Your task to perform on an android device: allow cookies in the chrome app Image 0: 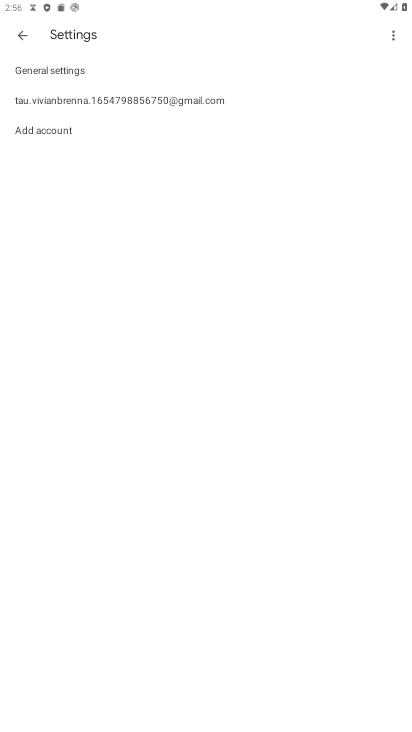
Step 0: click (18, 38)
Your task to perform on an android device: allow cookies in the chrome app Image 1: 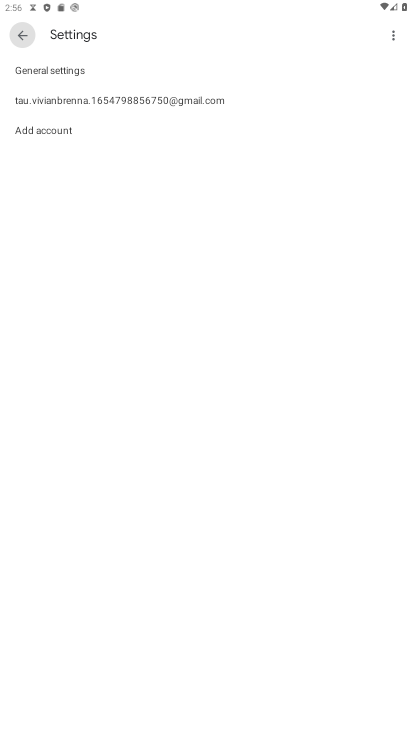
Step 1: click (19, 37)
Your task to perform on an android device: allow cookies in the chrome app Image 2: 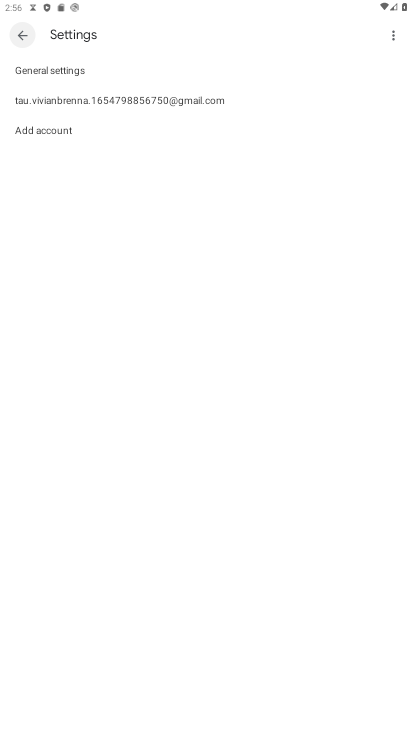
Step 2: click (19, 37)
Your task to perform on an android device: allow cookies in the chrome app Image 3: 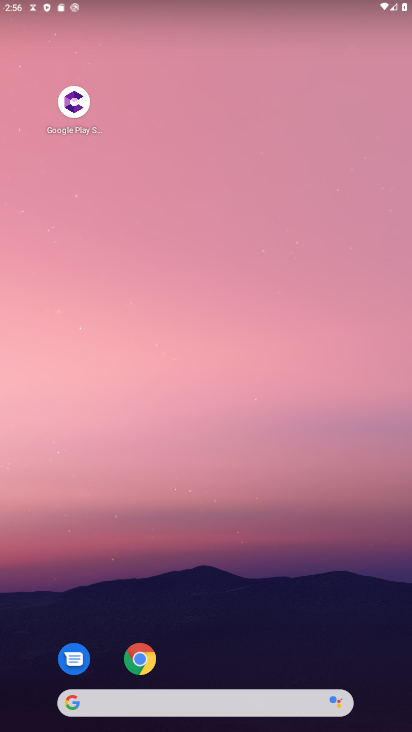
Step 3: drag from (210, 655) to (129, 71)
Your task to perform on an android device: allow cookies in the chrome app Image 4: 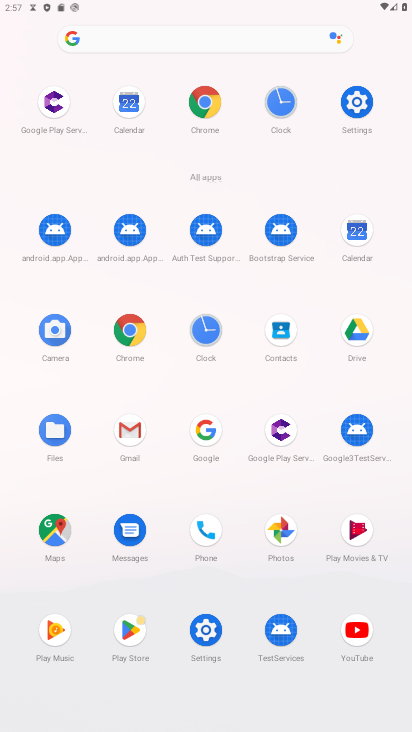
Step 4: click (205, 104)
Your task to perform on an android device: allow cookies in the chrome app Image 5: 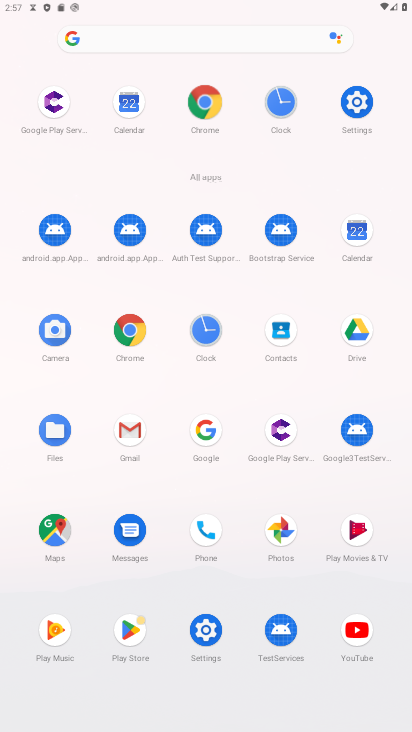
Step 5: click (209, 106)
Your task to perform on an android device: allow cookies in the chrome app Image 6: 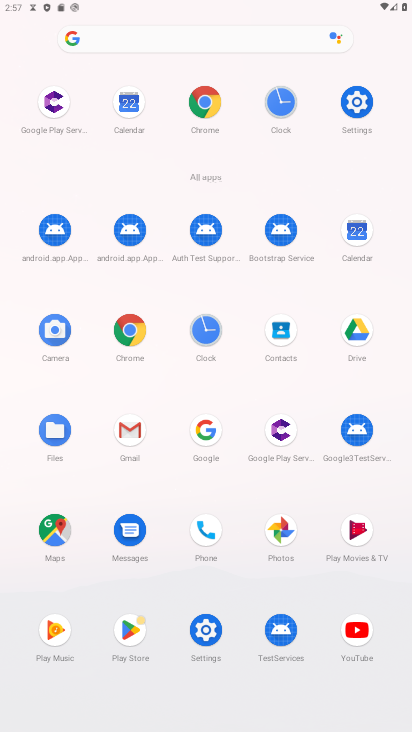
Step 6: click (209, 106)
Your task to perform on an android device: allow cookies in the chrome app Image 7: 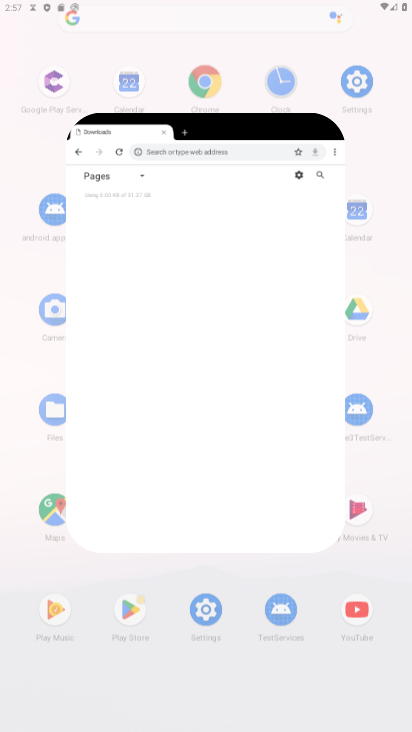
Step 7: click (209, 106)
Your task to perform on an android device: allow cookies in the chrome app Image 8: 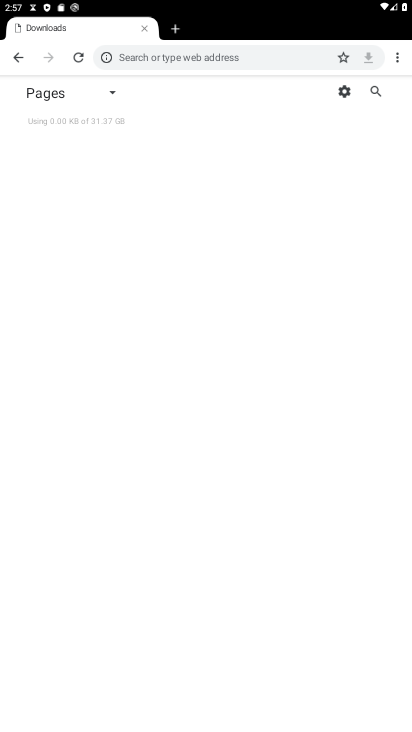
Step 8: click (9, 61)
Your task to perform on an android device: allow cookies in the chrome app Image 9: 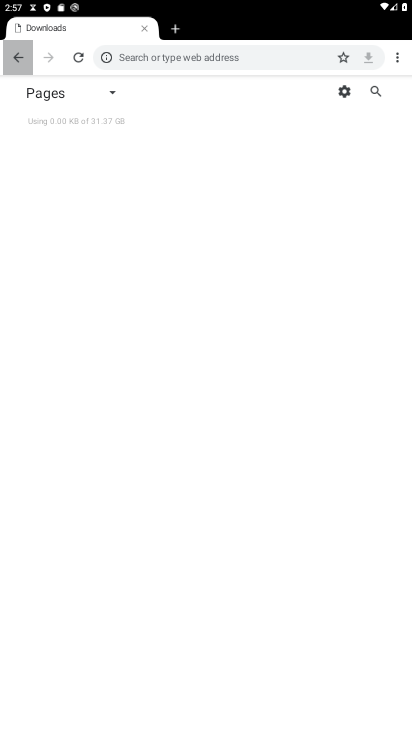
Step 9: click (11, 57)
Your task to perform on an android device: allow cookies in the chrome app Image 10: 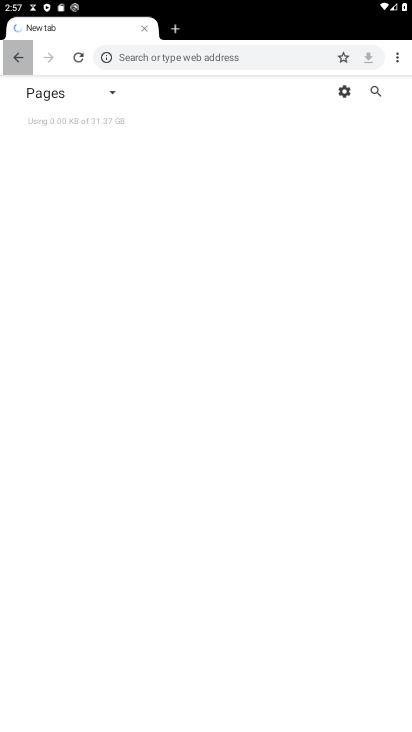
Step 10: click (11, 57)
Your task to perform on an android device: allow cookies in the chrome app Image 11: 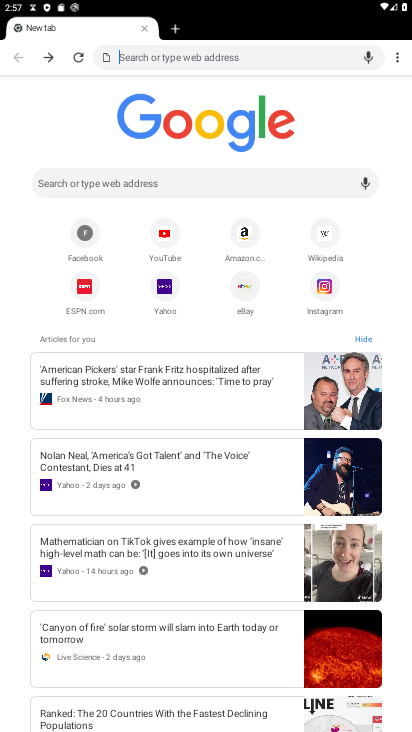
Step 11: drag from (397, 59) to (278, 103)
Your task to perform on an android device: allow cookies in the chrome app Image 12: 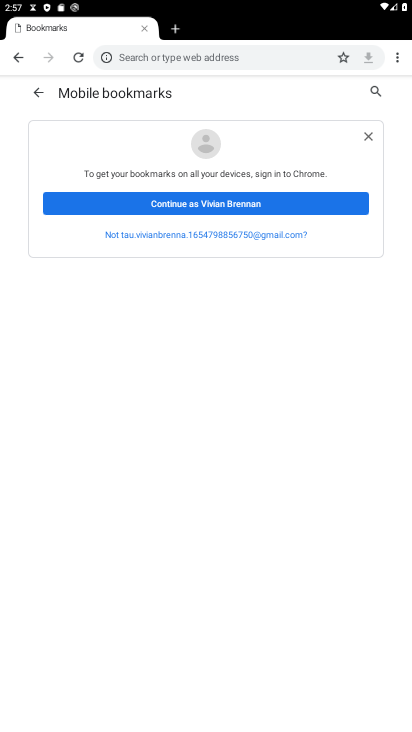
Step 12: click (400, 62)
Your task to perform on an android device: allow cookies in the chrome app Image 13: 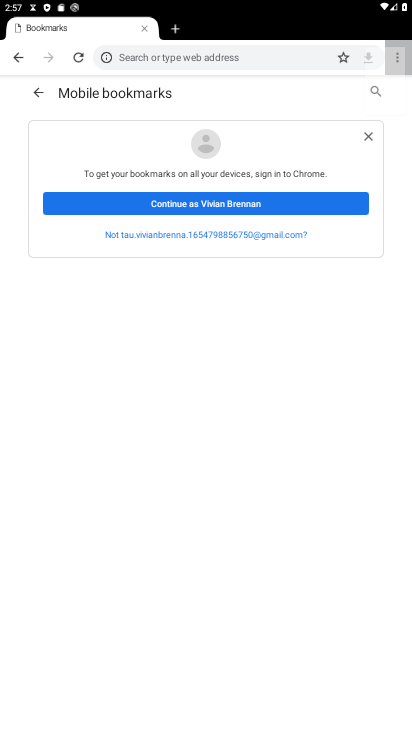
Step 13: click (399, 62)
Your task to perform on an android device: allow cookies in the chrome app Image 14: 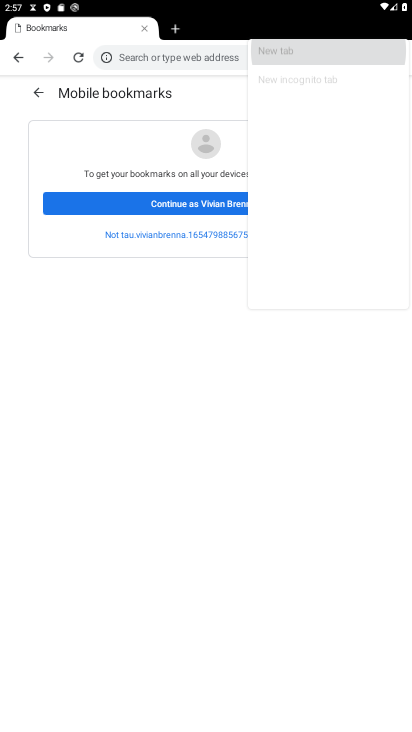
Step 14: click (401, 61)
Your task to perform on an android device: allow cookies in the chrome app Image 15: 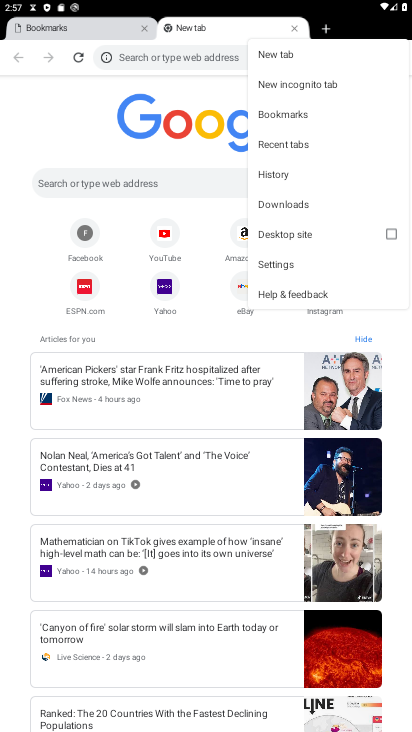
Step 15: click (279, 260)
Your task to perform on an android device: allow cookies in the chrome app Image 16: 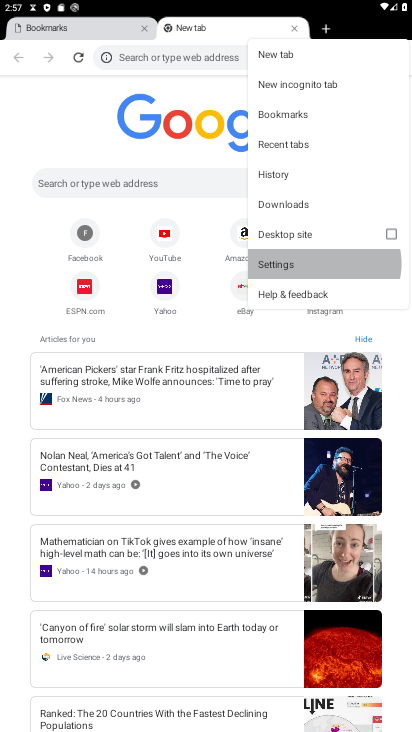
Step 16: click (279, 260)
Your task to perform on an android device: allow cookies in the chrome app Image 17: 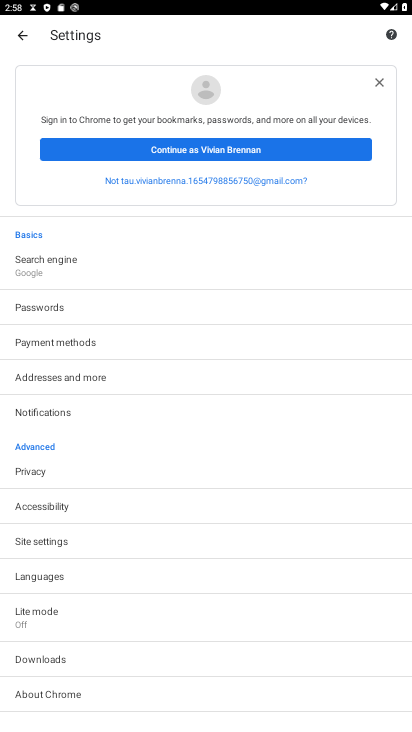
Step 17: drag from (174, 574) to (97, 184)
Your task to perform on an android device: allow cookies in the chrome app Image 18: 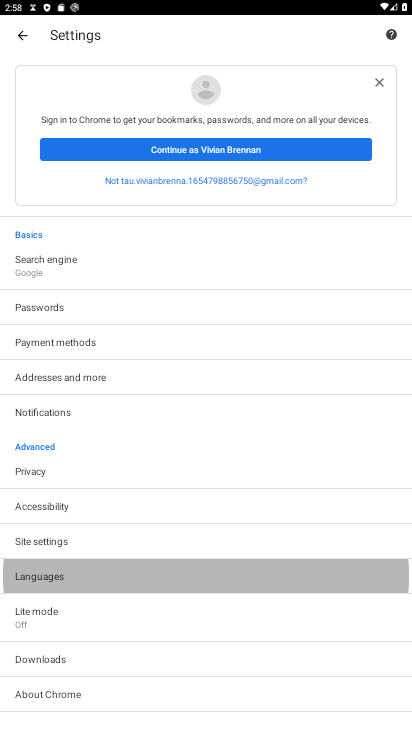
Step 18: drag from (94, 480) to (137, 26)
Your task to perform on an android device: allow cookies in the chrome app Image 19: 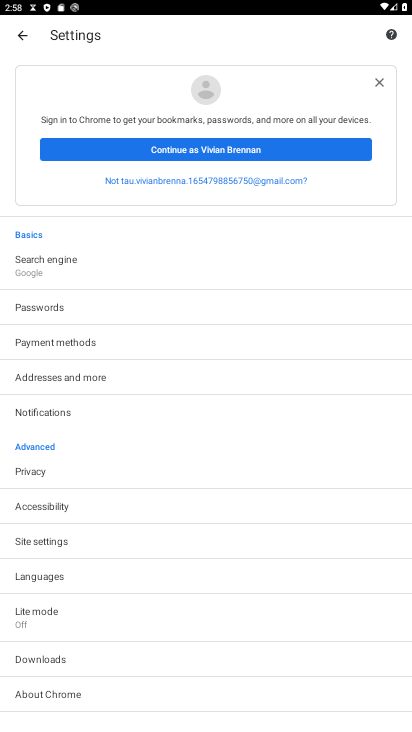
Step 19: click (371, 86)
Your task to perform on an android device: allow cookies in the chrome app Image 20: 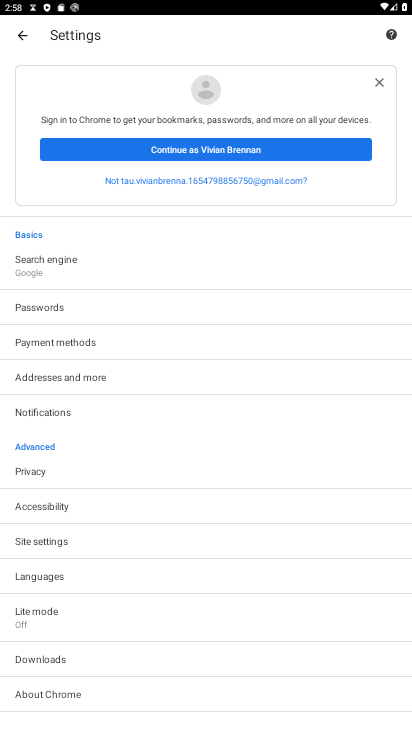
Step 20: drag from (59, 515) to (62, 72)
Your task to perform on an android device: allow cookies in the chrome app Image 21: 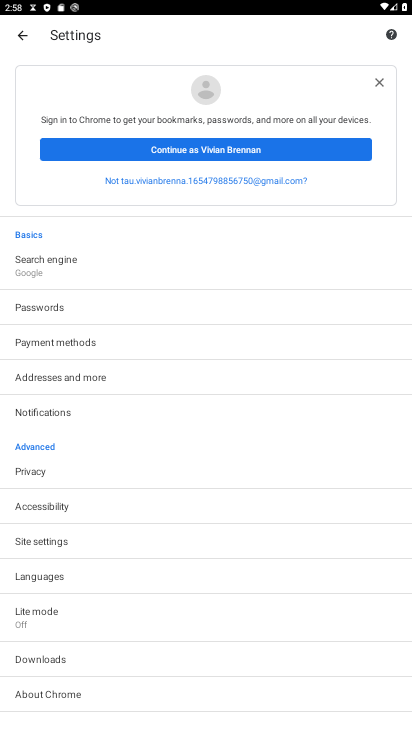
Step 21: click (96, 109)
Your task to perform on an android device: allow cookies in the chrome app Image 22: 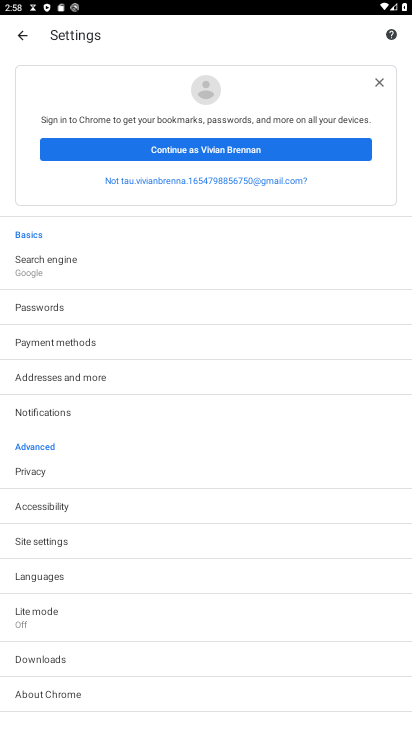
Step 22: drag from (72, 384) to (53, 198)
Your task to perform on an android device: allow cookies in the chrome app Image 23: 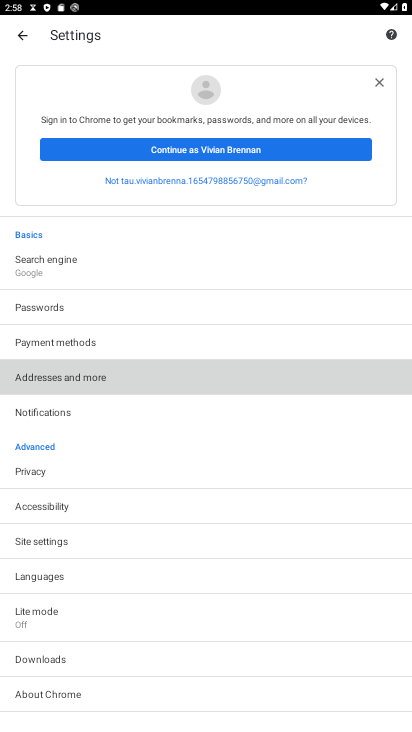
Step 23: click (176, 324)
Your task to perform on an android device: allow cookies in the chrome app Image 24: 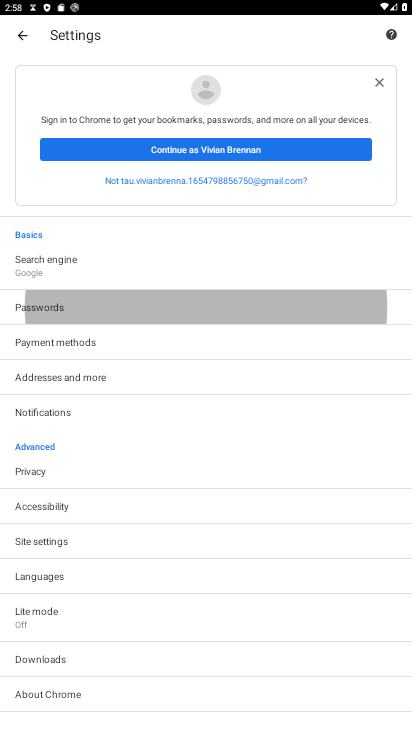
Step 24: drag from (232, 467) to (231, 210)
Your task to perform on an android device: allow cookies in the chrome app Image 25: 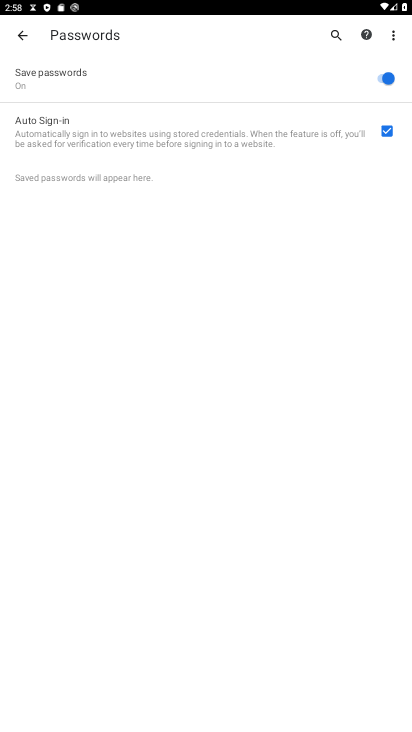
Step 25: click (185, 427)
Your task to perform on an android device: allow cookies in the chrome app Image 26: 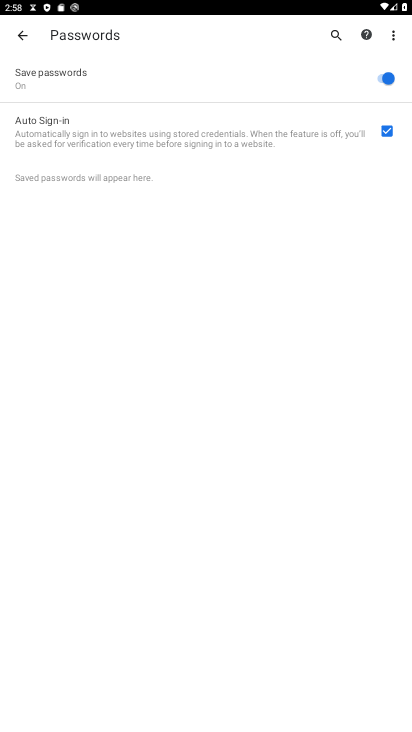
Step 26: drag from (197, 457) to (170, 6)
Your task to perform on an android device: allow cookies in the chrome app Image 27: 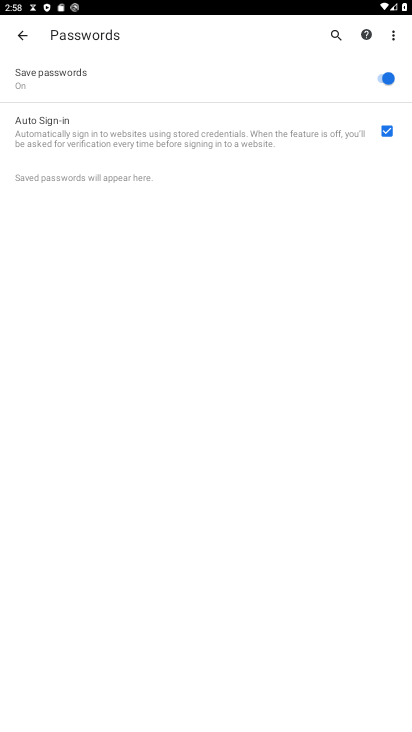
Step 27: click (27, 37)
Your task to perform on an android device: allow cookies in the chrome app Image 28: 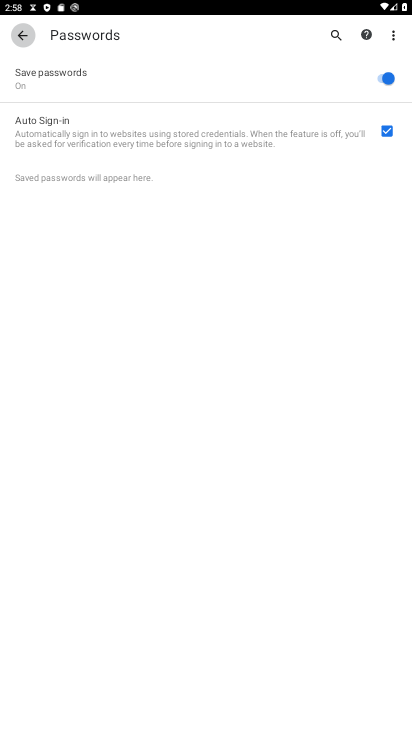
Step 28: click (20, 26)
Your task to perform on an android device: allow cookies in the chrome app Image 29: 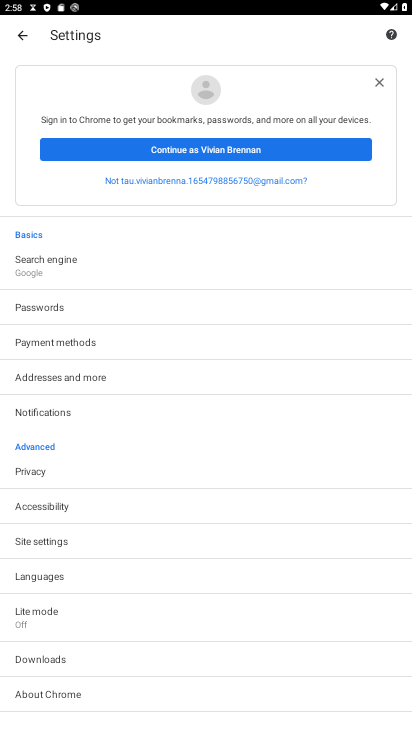
Step 29: click (48, 72)
Your task to perform on an android device: allow cookies in the chrome app Image 30: 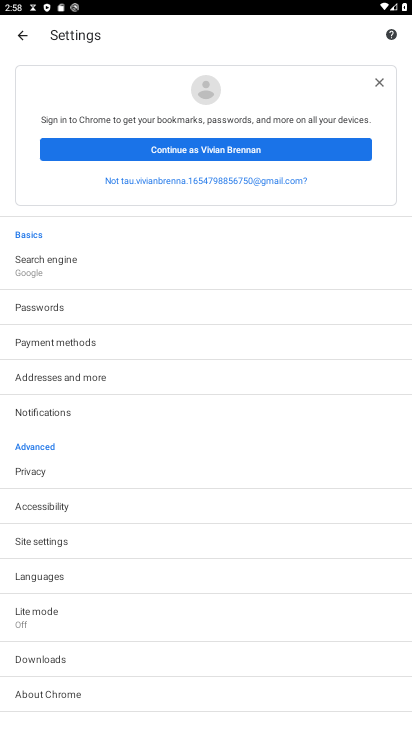
Step 30: drag from (64, 382) to (66, 122)
Your task to perform on an android device: allow cookies in the chrome app Image 31: 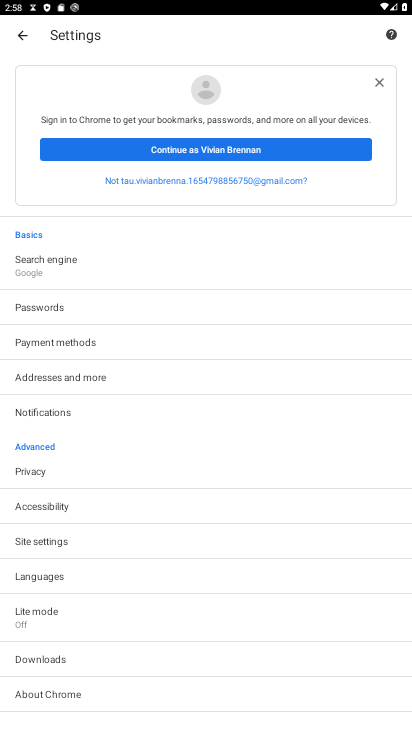
Step 31: drag from (72, 370) to (61, 62)
Your task to perform on an android device: allow cookies in the chrome app Image 32: 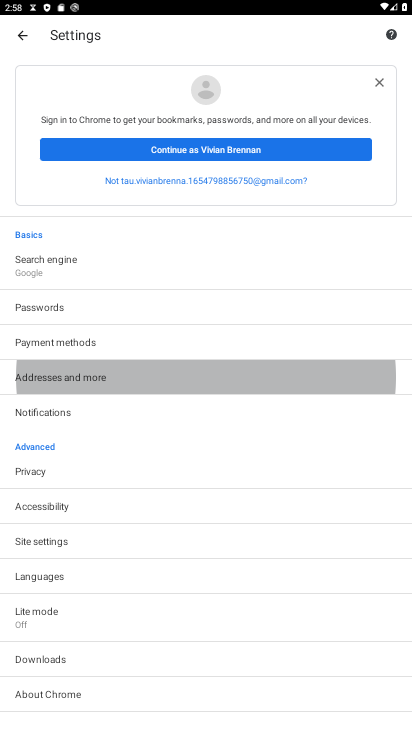
Step 32: drag from (30, 557) to (54, 82)
Your task to perform on an android device: allow cookies in the chrome app Image 33: 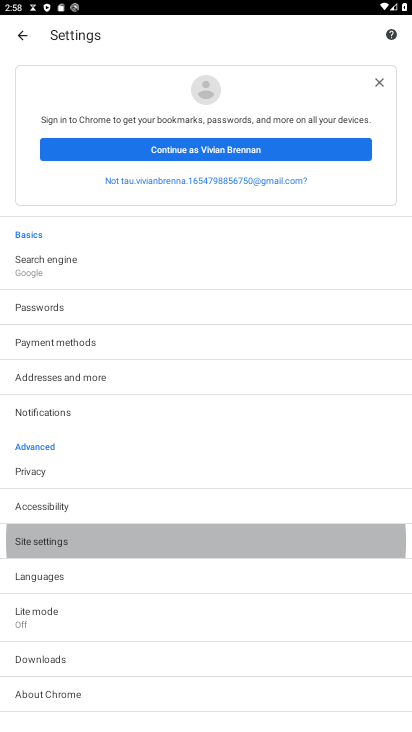
Step 33: drag from (83, 436) to (95, 155)
Your task to perform on an android device: allow cookies in the chrome app Image 34: 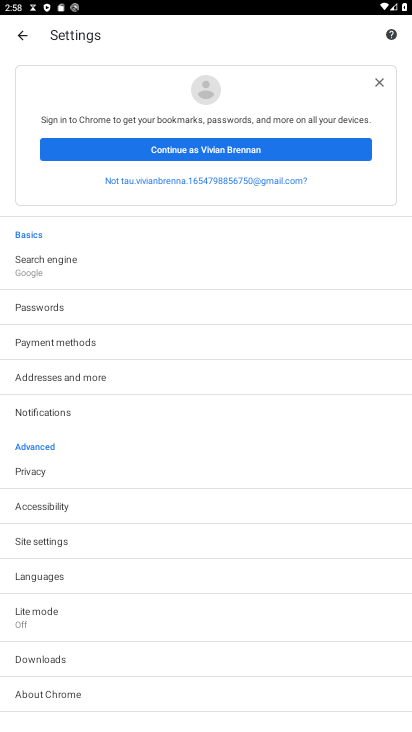
Step 34: drag from (58, 140) to (49, 21)
Your task to perform on an android device: allow cookies in the chrome app Image 35: 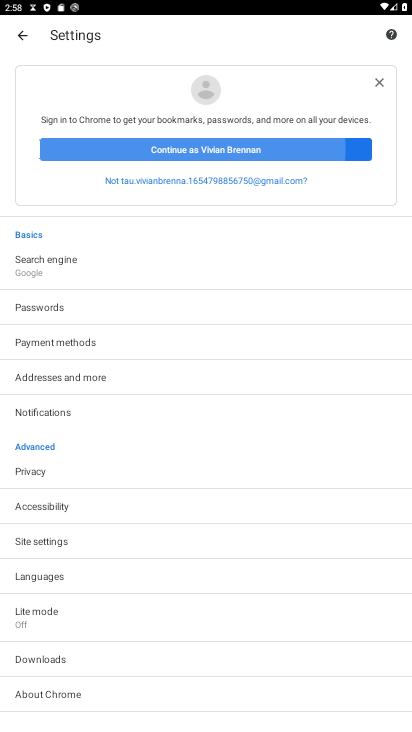
Step 35: drag from (68, 186) to (178, 58)
Your task to perform on an android device: allow cookies in the chrome app Image 36: 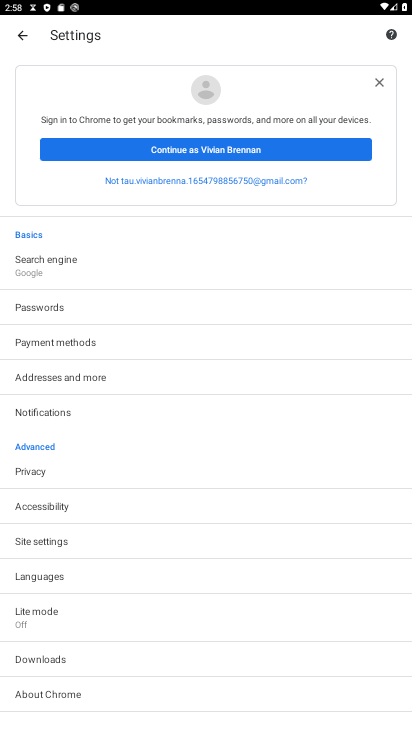
Step 36: click (40, 548)
Your task to perform on an android device: allow cookies in the chrome app Image 37: 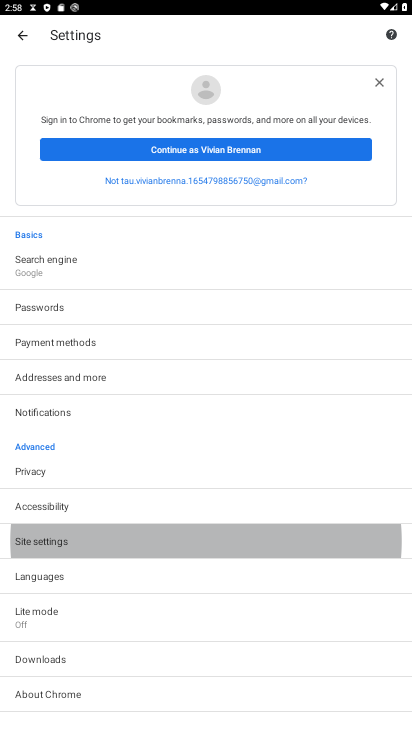
Step 37: click (42, 548)
Your task to perform on an android device: allow cookies in the chrome app Image 38: 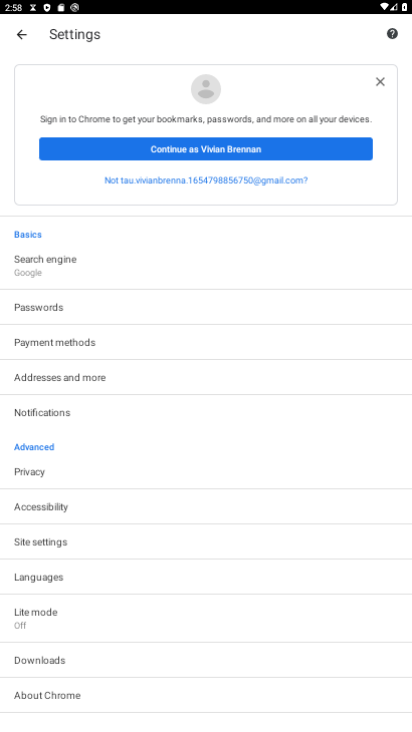
Step 38: click (44, 546)
Your task to perform on an android device: allow cookies in the chrome app Image 39: 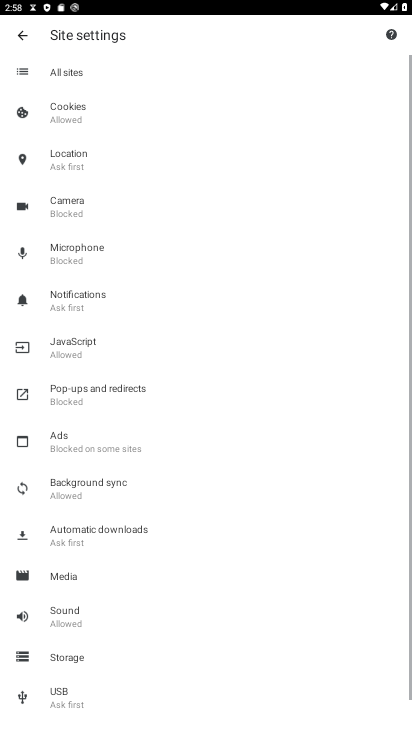
Step 39: click (43, 546)
Your task to perform on an android device: allow cookies in the chrome app Image 40: 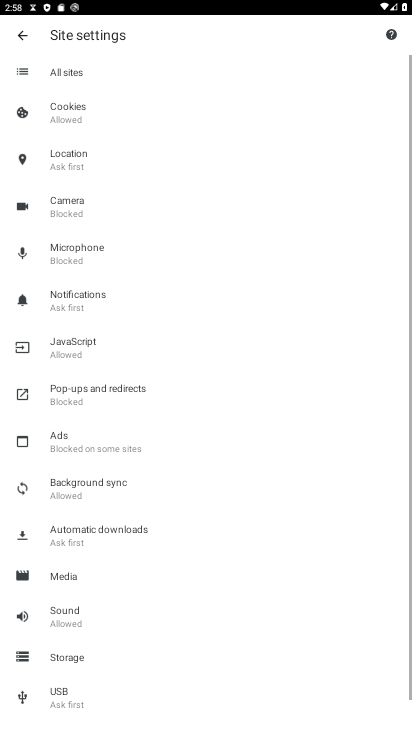
Step 40: click (38, 545)
Your task to perform on an android device: allow cookies in the chrome app Image 41: 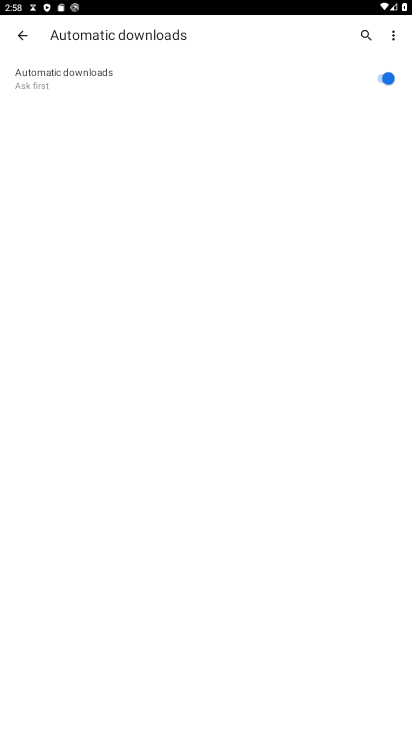
Step 41: task complete